Your task to perform on an android device: turn notification dots on Image 0: 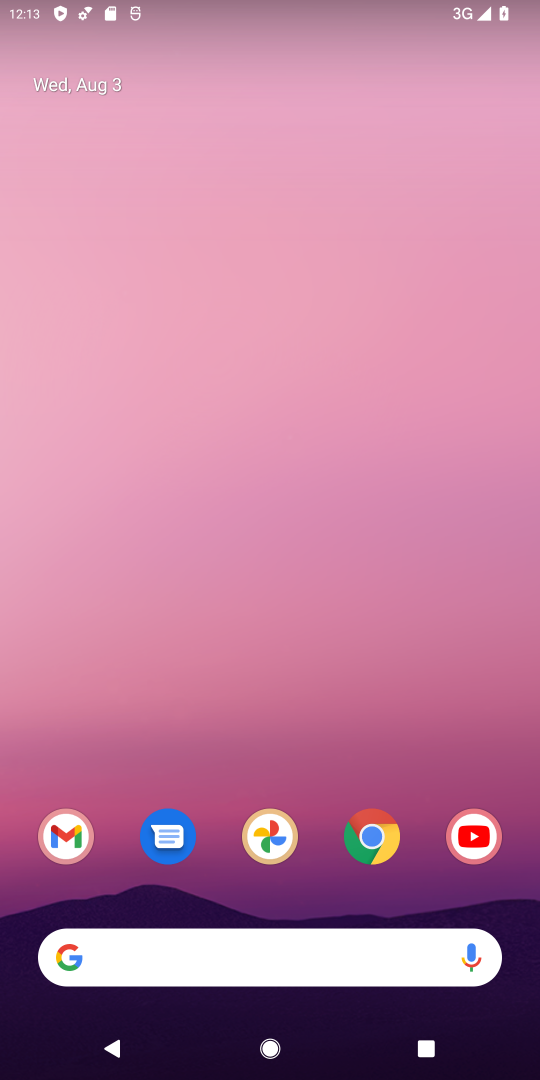
Step 0: click (351, 134)
Your task to perform on an android device: turn notification dots on Image 1: 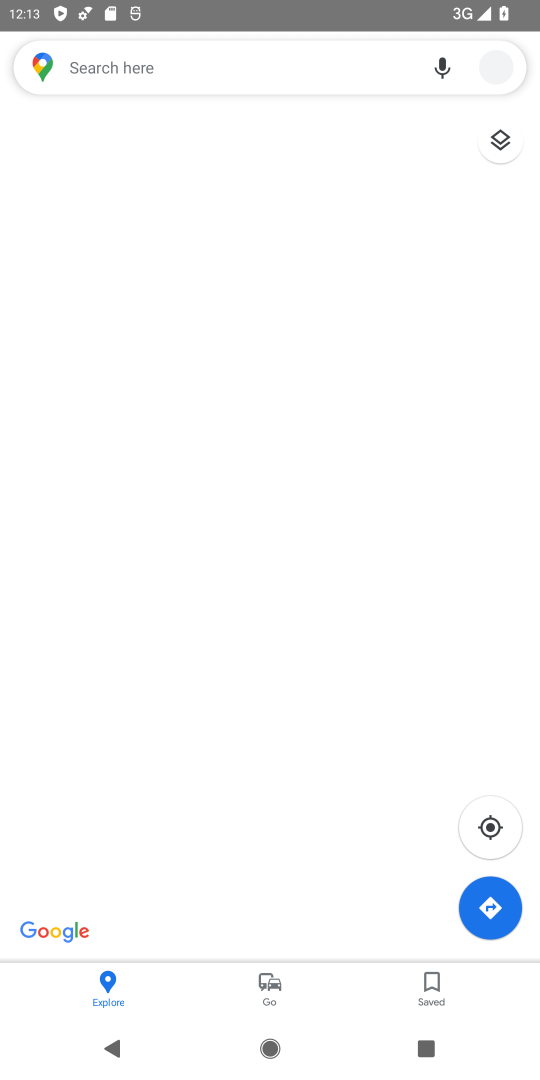
Step 1: drag from (308, 816) to (351, 337)
Your task to perform on an android device: turn notification dots on Image 2: 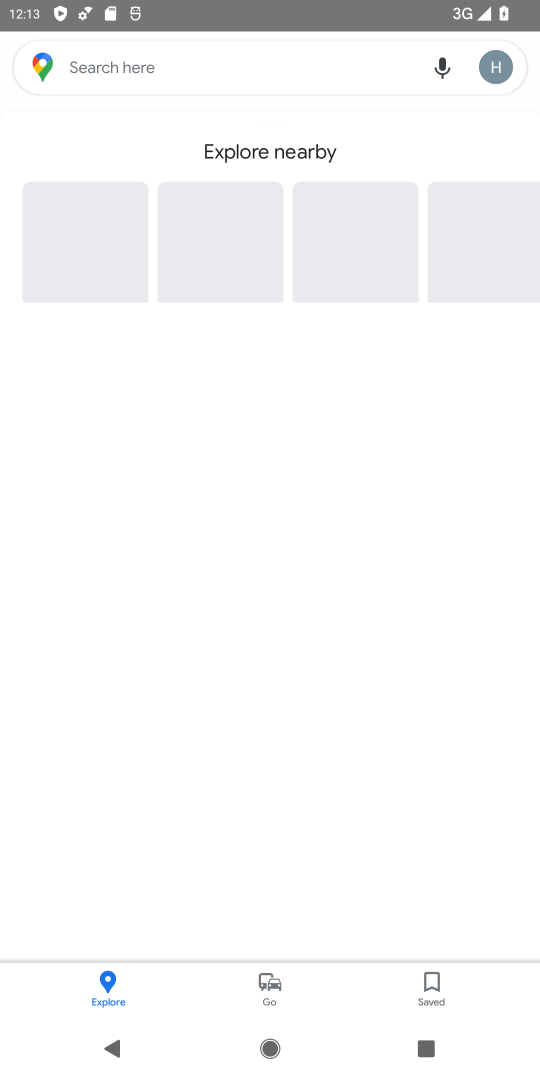
Step 2: drag from (294, 860) to (334, 386)
Your task to perform on an android device: turn notification dots on Image 3: 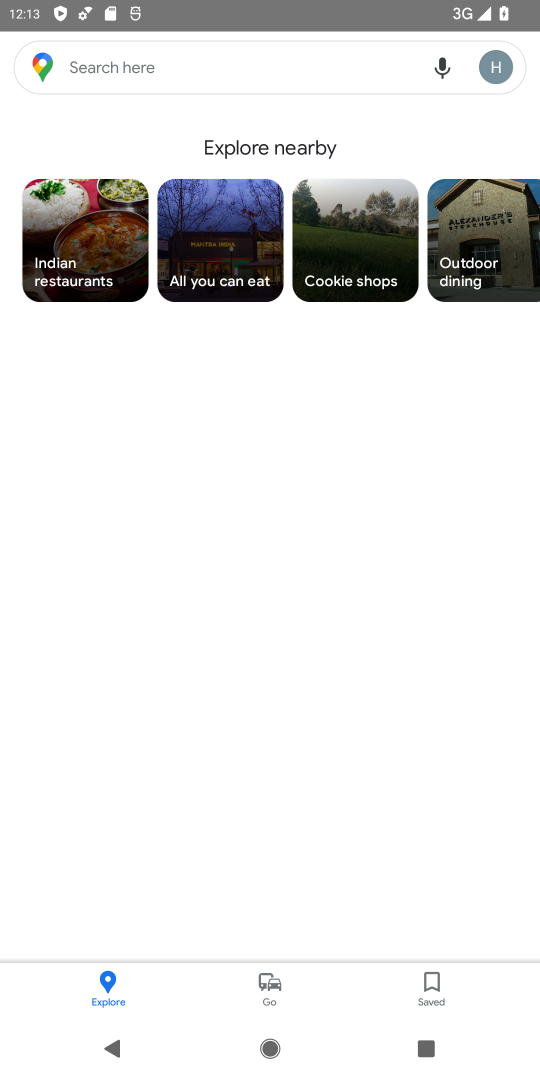
Step 3: press home button
Your task to perform on an android device: turn notification dots on Image 4: 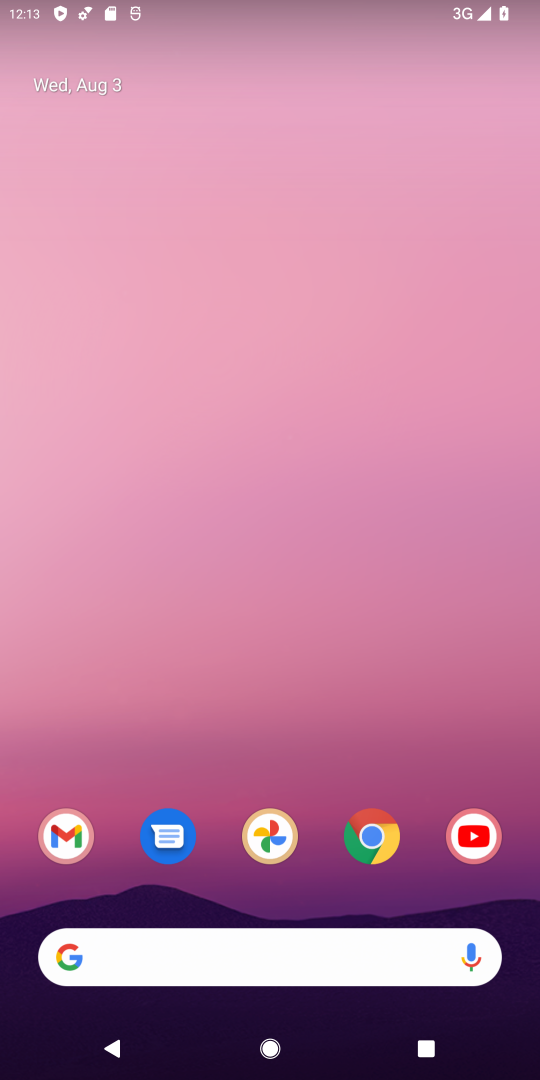
Step 4: drag from (264, 805) to (344, 175)
Your task to perform on an android device: turn notification dots on Image 5: 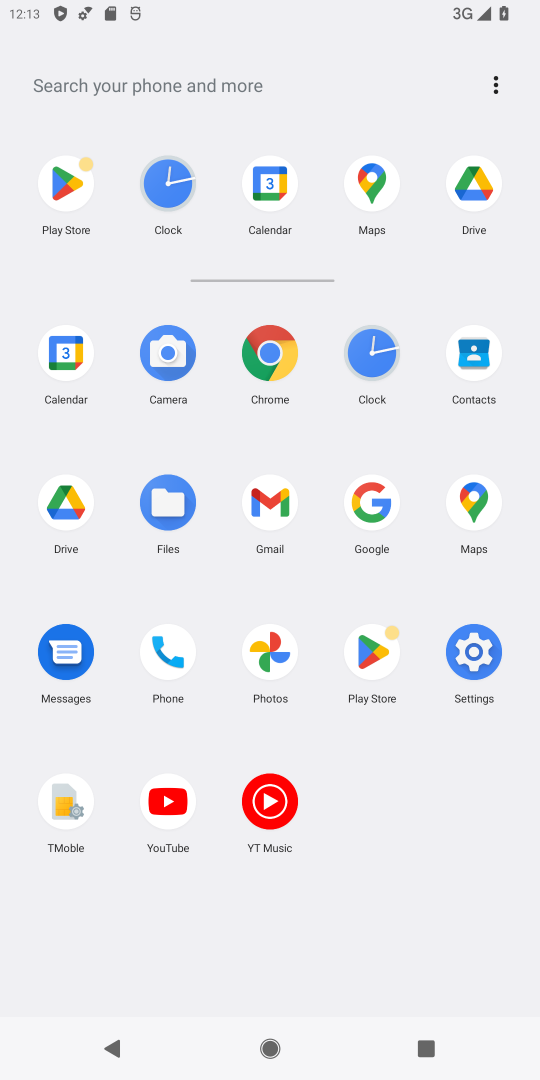
Step 5: click (265, 351)
Your task to perform on an android device: turn notification dots on Image 6: 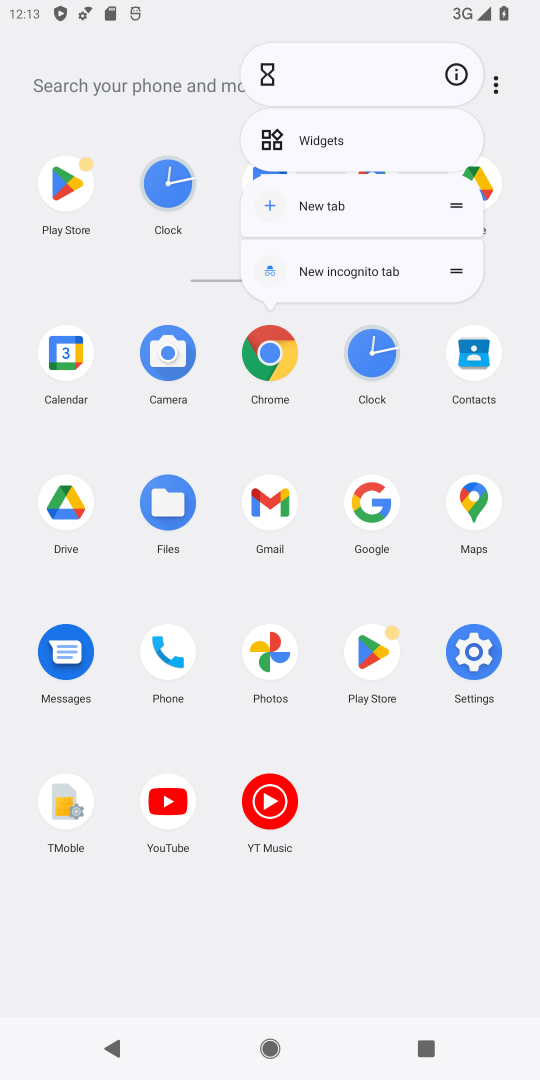
Step 6: click (445, 73)
Your task to perform on an android device: turn notification dots on Image 7: 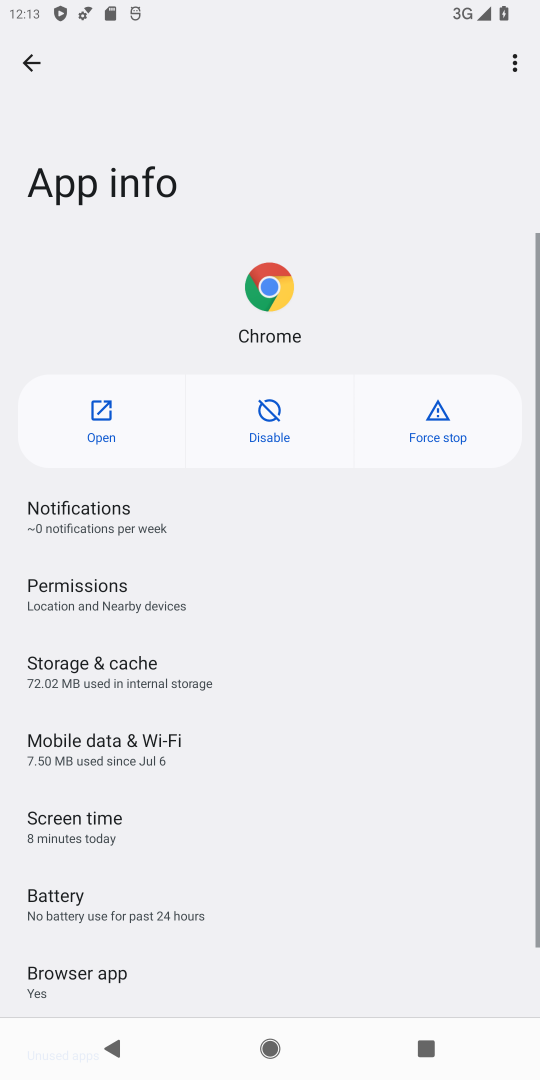
Step 7: click (89, 438)
Your task to perform on an android device: turn notification dots on Image 8: 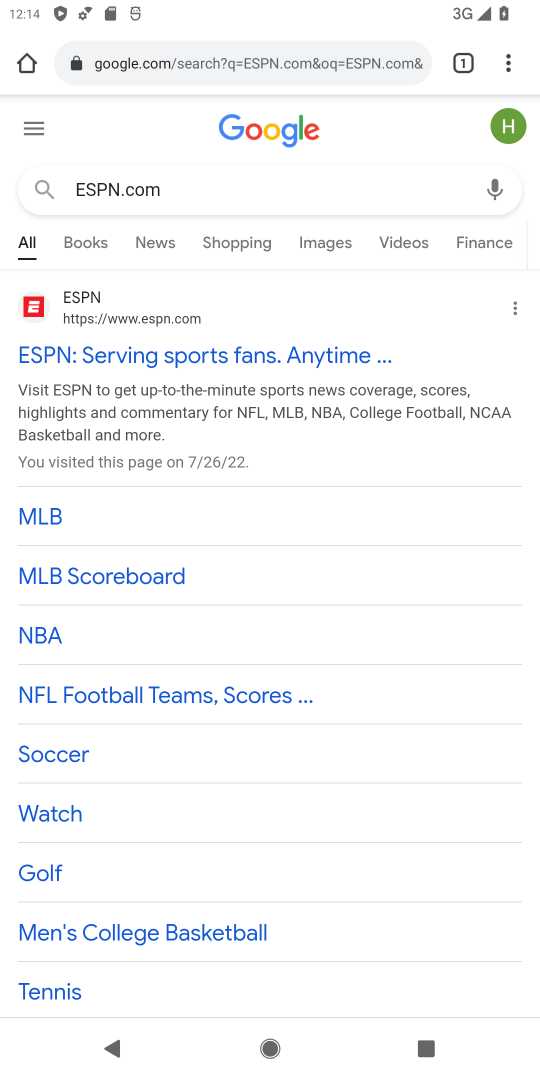
Step 8: press home button
Your task to perform on an android device: turn notification dots on Image 9: 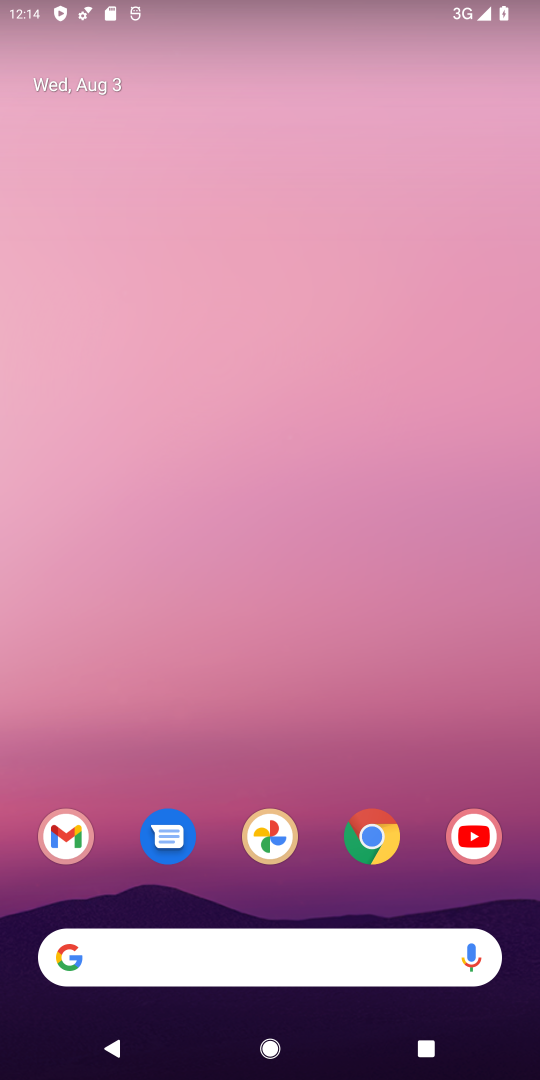
Step 9: drag from (215, 896) to (299, 410)
Your task to perform on an android device: turn notification dots on Image 10: 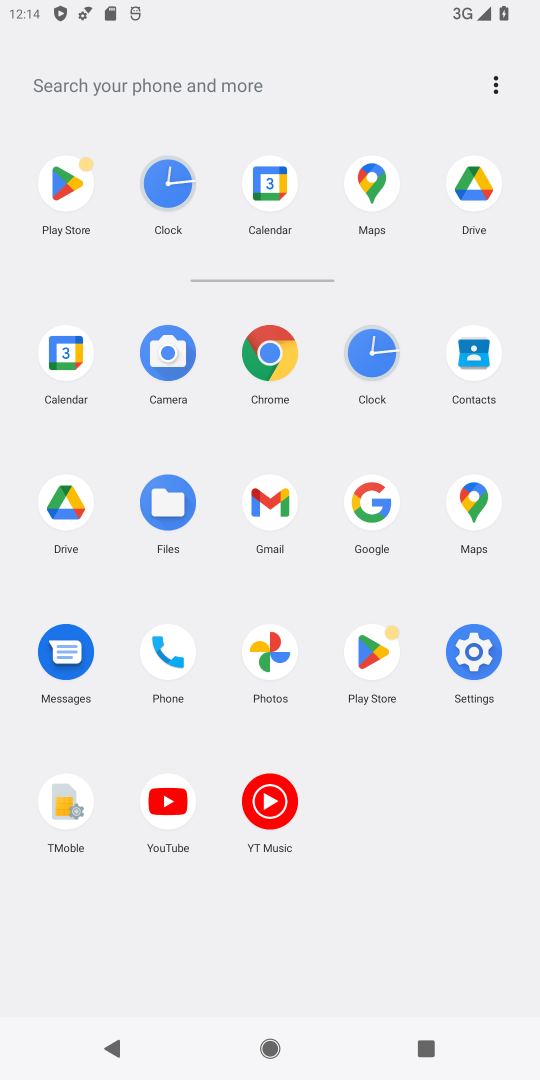
Step 10: click (478, 638)
Your task to perform on an android device: turn notification dots on Image 11: 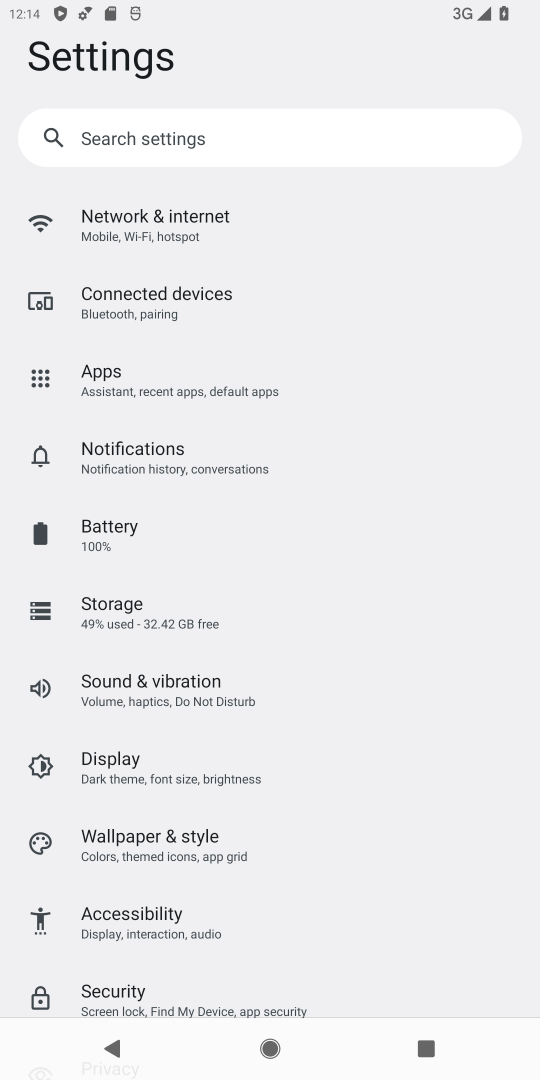
Step 11: click (125, 468)
Your task to perform on an android device: turn notification dots on Image 12: 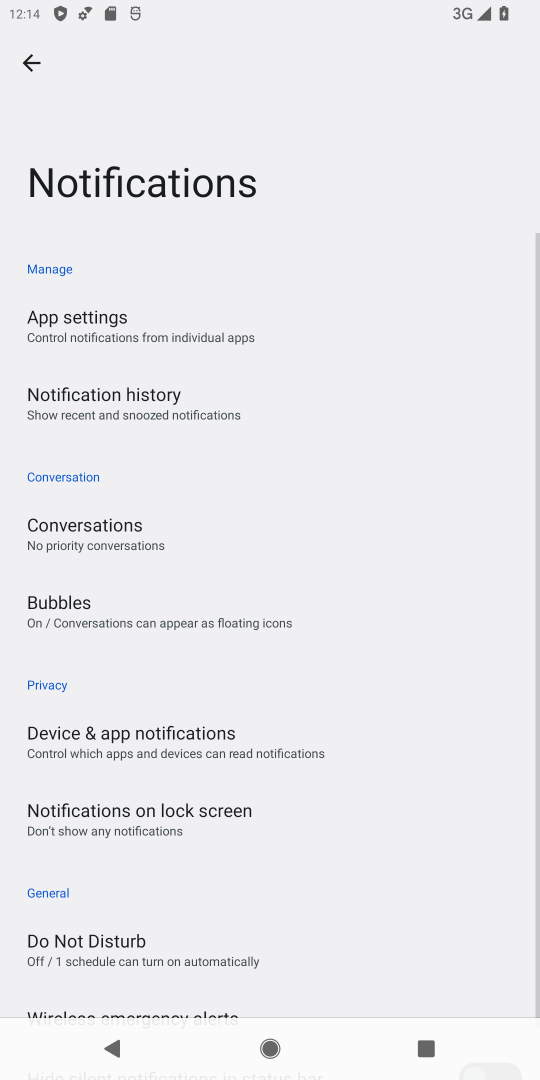
Step 12: task complete